Your task to perform on an android device: Show me productivity apps on the Play Store Image 0: 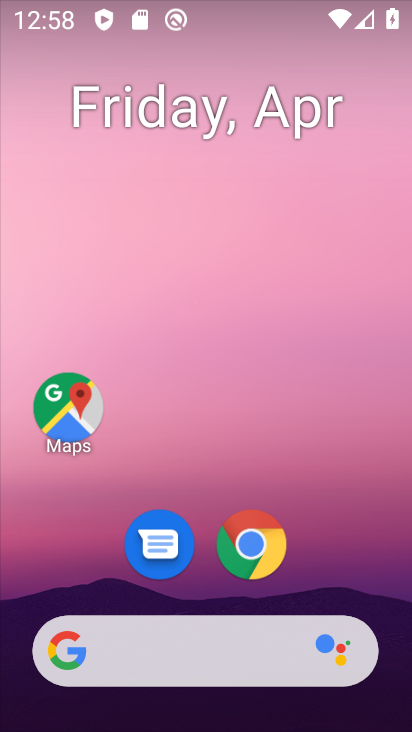
Step 0: drag from (177, 607) to (218, 90)
Your task to perform on an android device: Show me productivity apps on the Play Store Image 1: 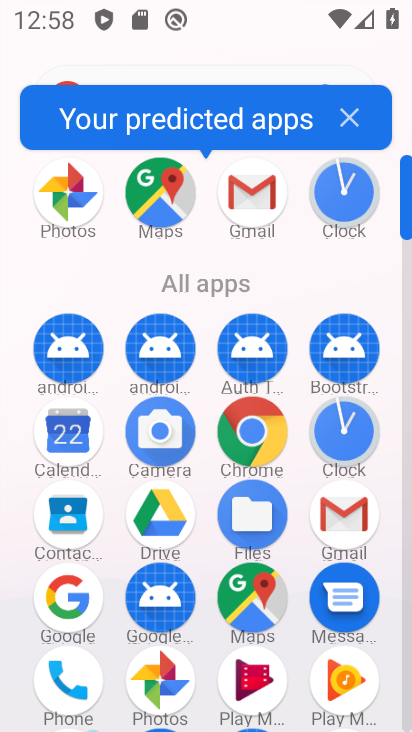
Step 1: drag from (183, 627) to (229, 316)
Your task to perform on an android device: Show me productivity apps on the Play Store Image 2: 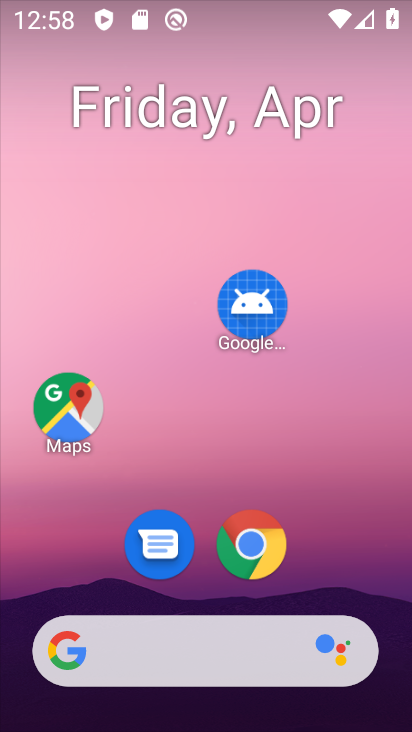
Step 2: drag from (322, 610) to (341, 11)
Your task to perform on an android device: Show me productivity apps on the Play Store Image 3: 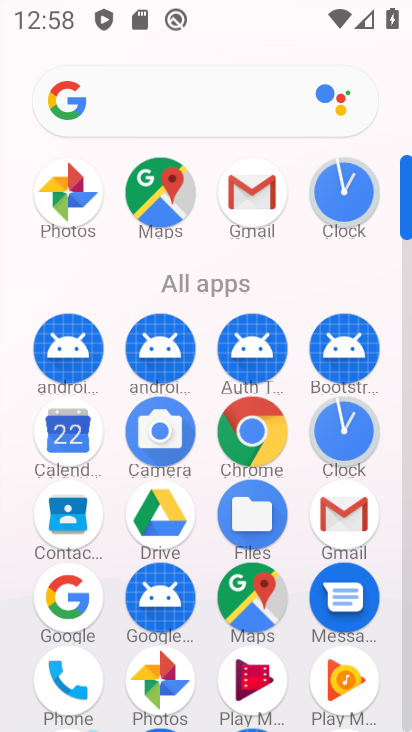
Step 3: drag from (365, 614) to (375, 205)
Your task to perform on an android device: Show me productivity apps on the Play Store Image 4: 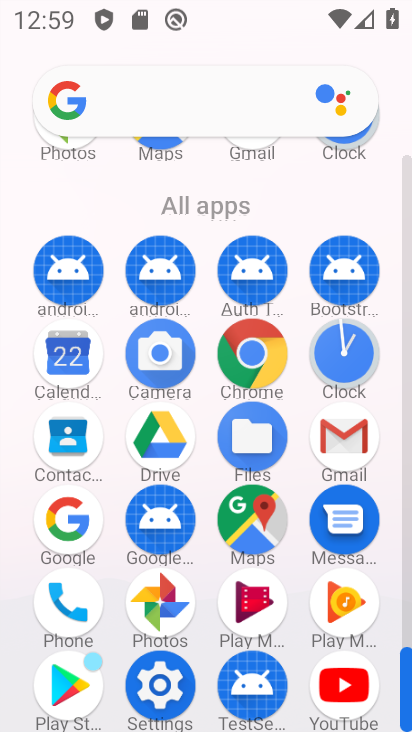
Step 4: click (60, 691)
Your task to perform on an android device: Show me productivity apps on the Play Store Image 5: 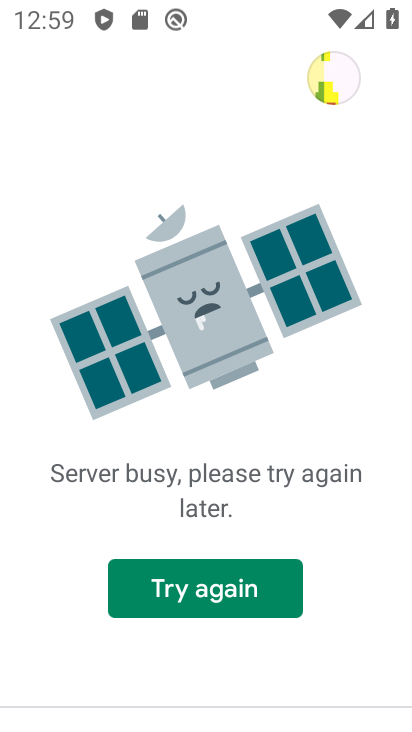
Step 5: click (309, 584)
Your task to perform on an android device: Show me productivity apps on the Play Store Image 6: 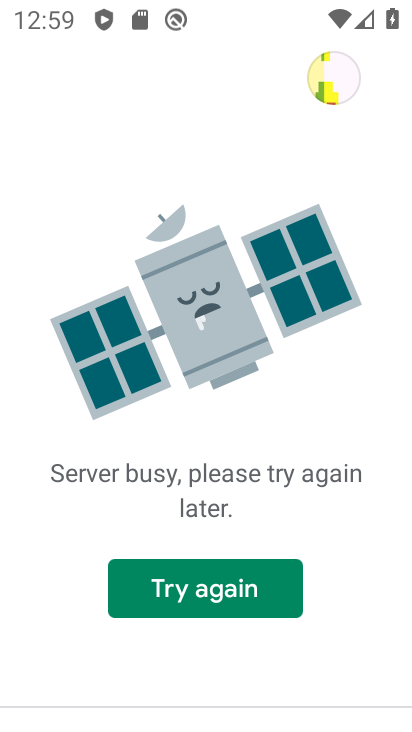
Step 6: click (271, 602)
Your task to perform on an android device: Show me productivity apps on the Play Store Image 7: 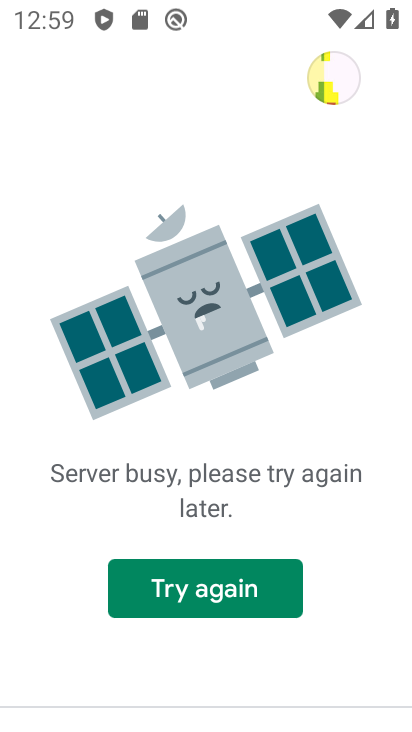
Step 7: click (269, 603)
Your task to perform on an android device: Show me productivity apps on the Play Store Image 8: 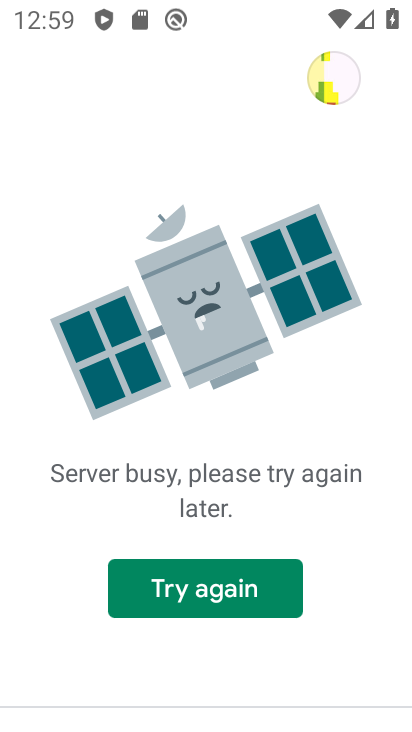
Step 8: task complete